Your task to perform on an android device: Do I have any events today? Image 0: 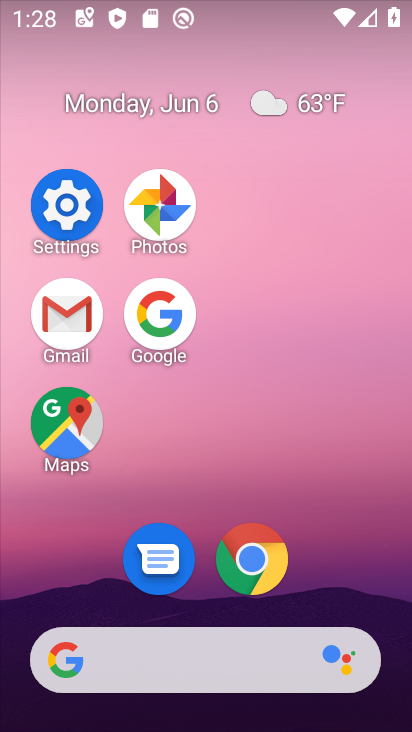
Step 0: drag from (374, 585) to (347, 88)
Your task to perform on an android device: Do I have any events today? Image 1: 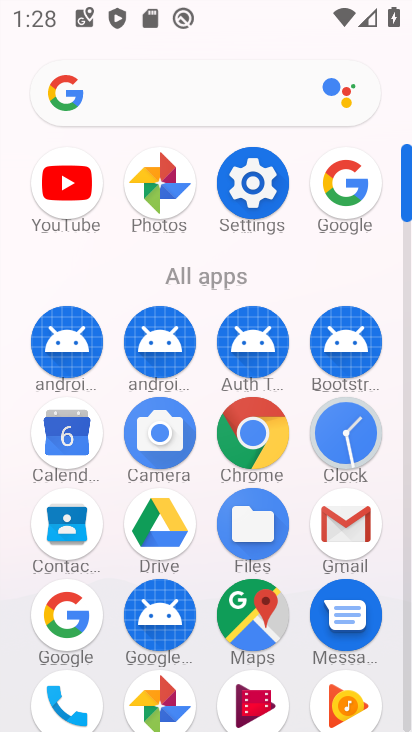
Step 1: drag from (48, 449) to (235, 246)
Your task to perform on an android device: Do I have any events today? Image 2: 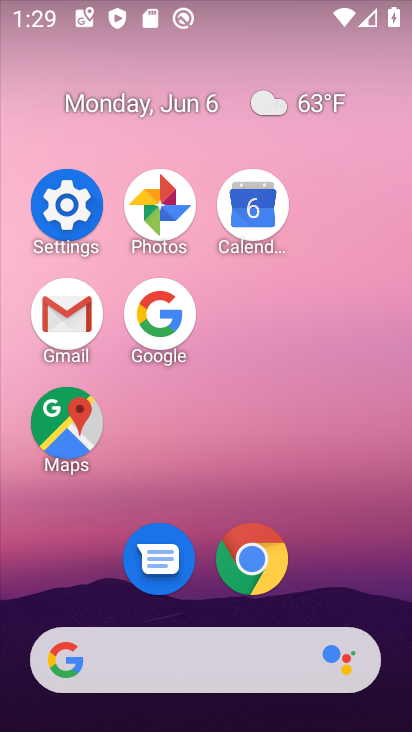
Step 2: click (253, 226)
Your task to perform on an android device: Do I have any events today? Image 3: 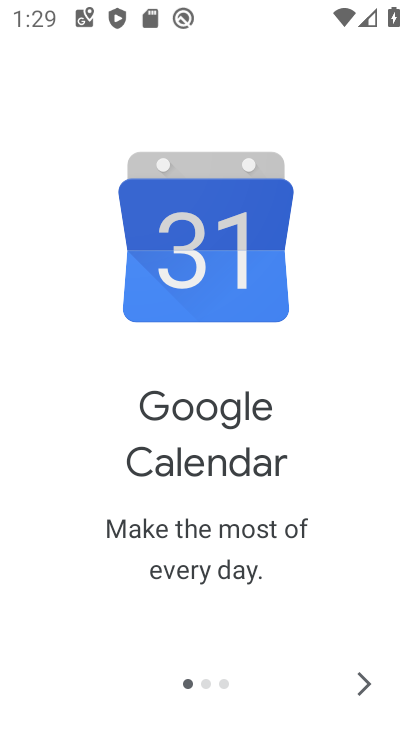
Step 3: click (373, 693)
Your task to perform on an android device: Do I have any events today? Image 4: 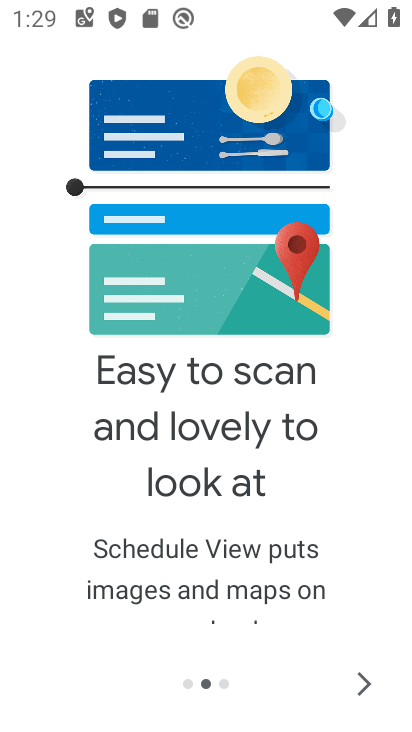
Step 4: click (373, 693)
Your task to perform on an android device: Do I have any events today? Image 5: 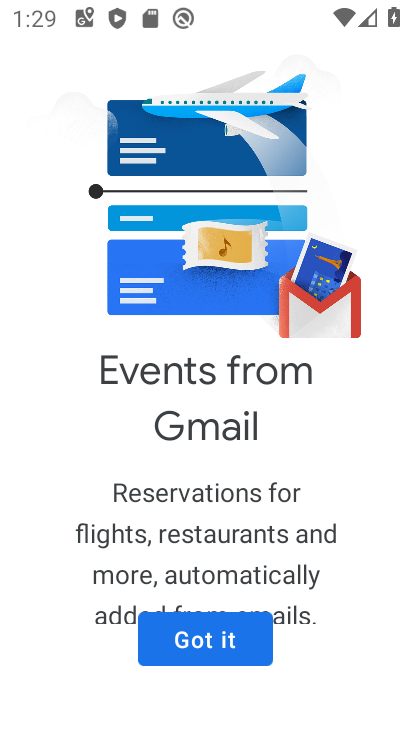
Step 5: click (217, 637)
Your task to perform on an android device: Do I have any events today? Image 6: 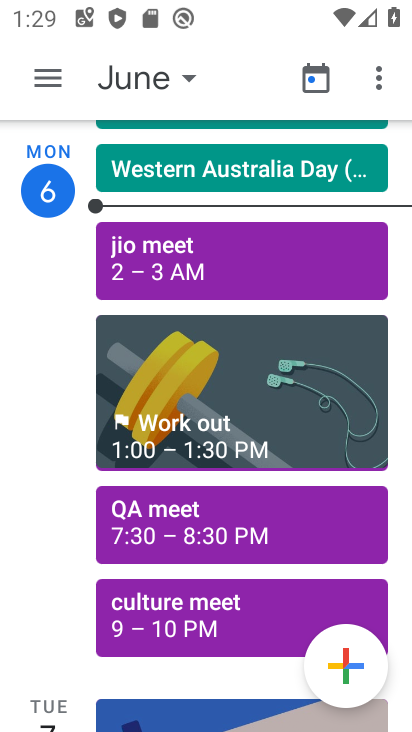
Step 6: task complete